Your task to perform on an android device: see sites visited before in the chrome app Image 0: 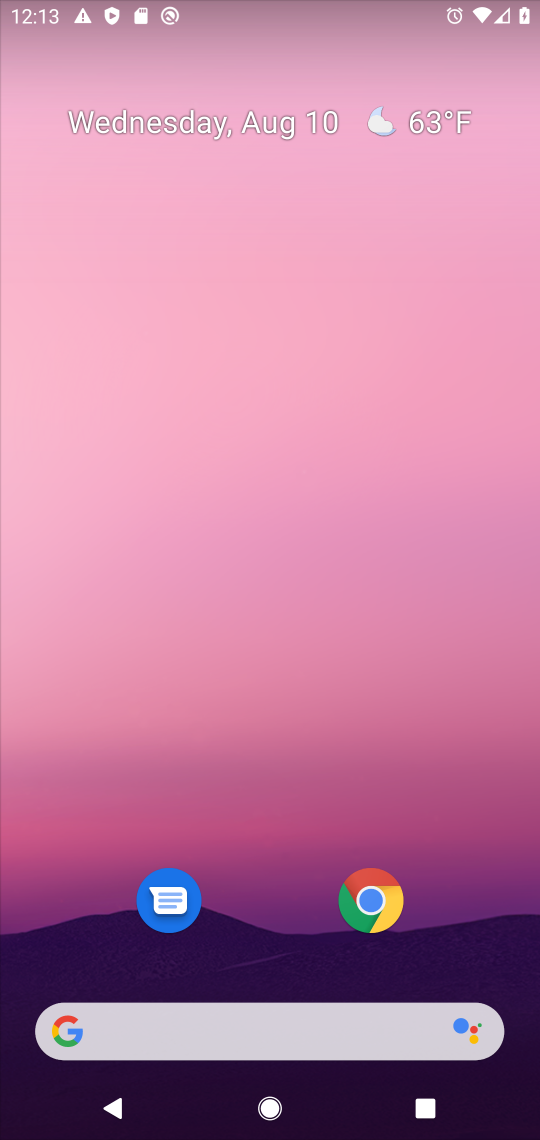
Step 0: click (371, 894)
Your task to perform on an android device: see sites visited before in the chrome app Image 1: 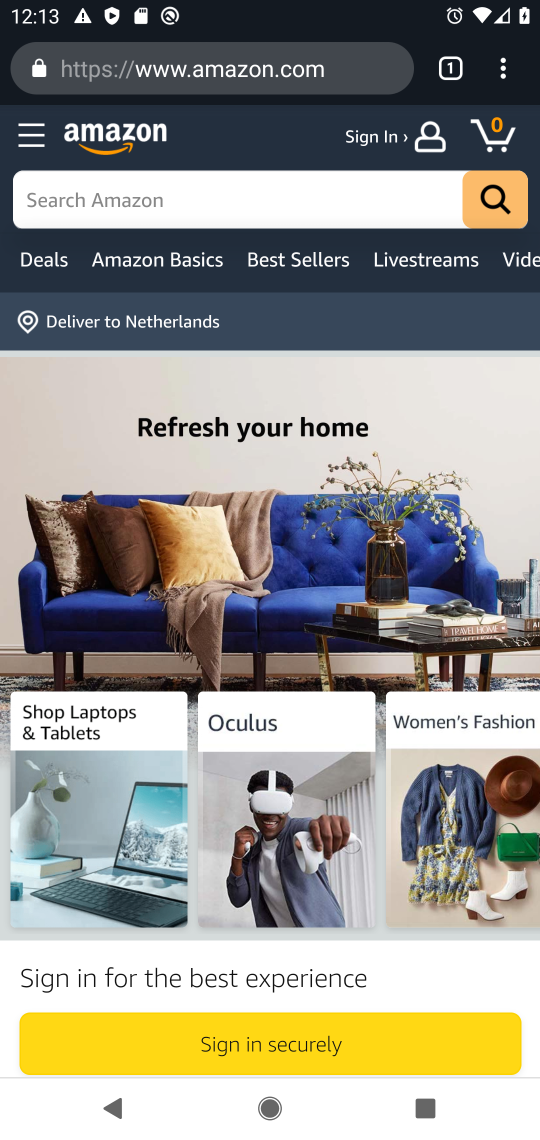
Step 1: click (501, 76)
Your task to perform on an android device: see sites visited before in the chrome app Image 2: 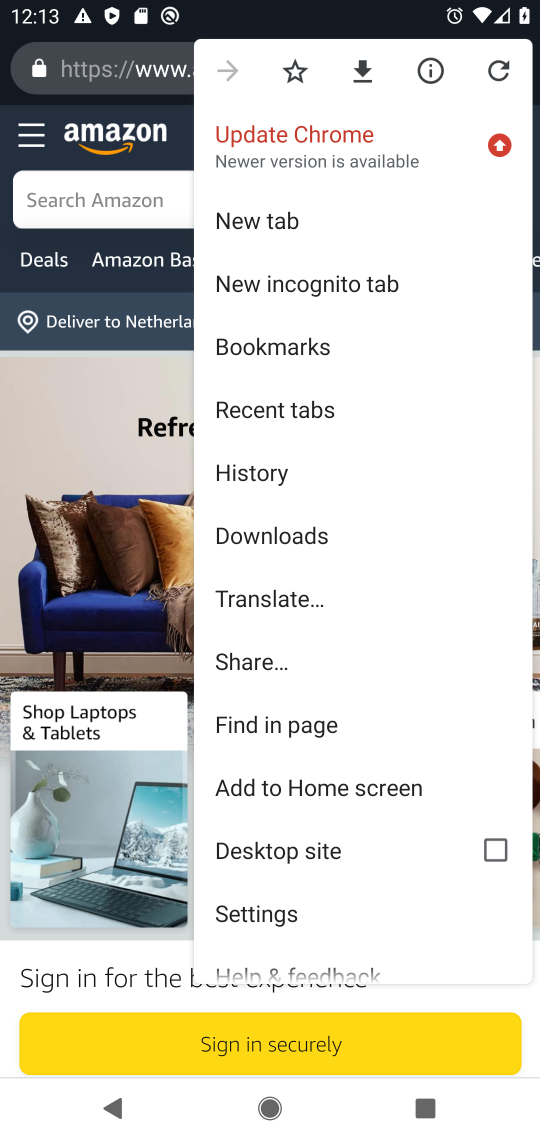
Step 2: click (286, 900)
Your task to perform on an android device: see sites visited before in the chrome app Image 3: 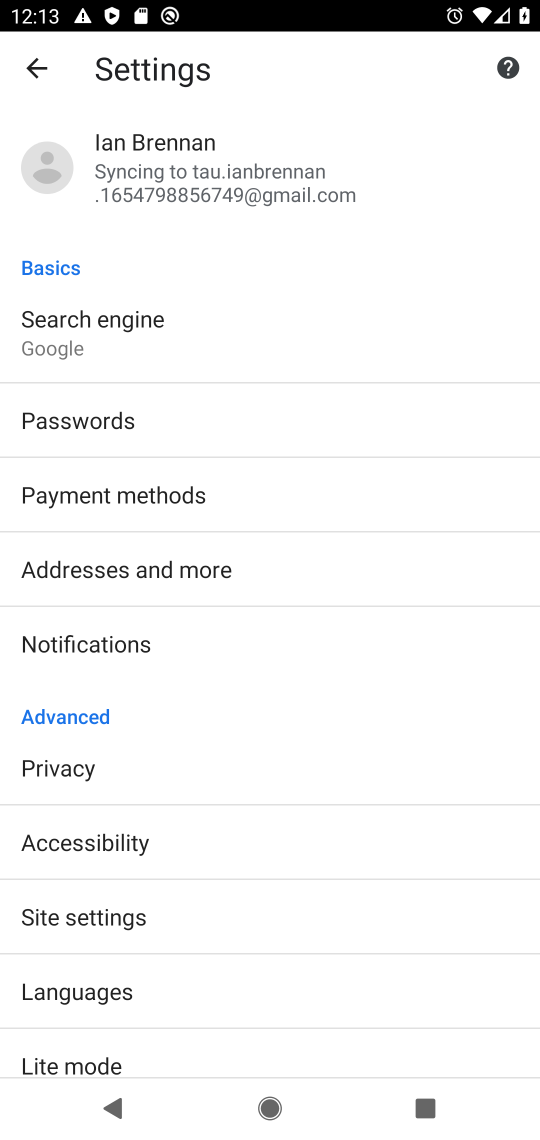
Step 3: click (39, 54)
Your task to perform on an android device: see sites visited before in the chrome app Image 4: 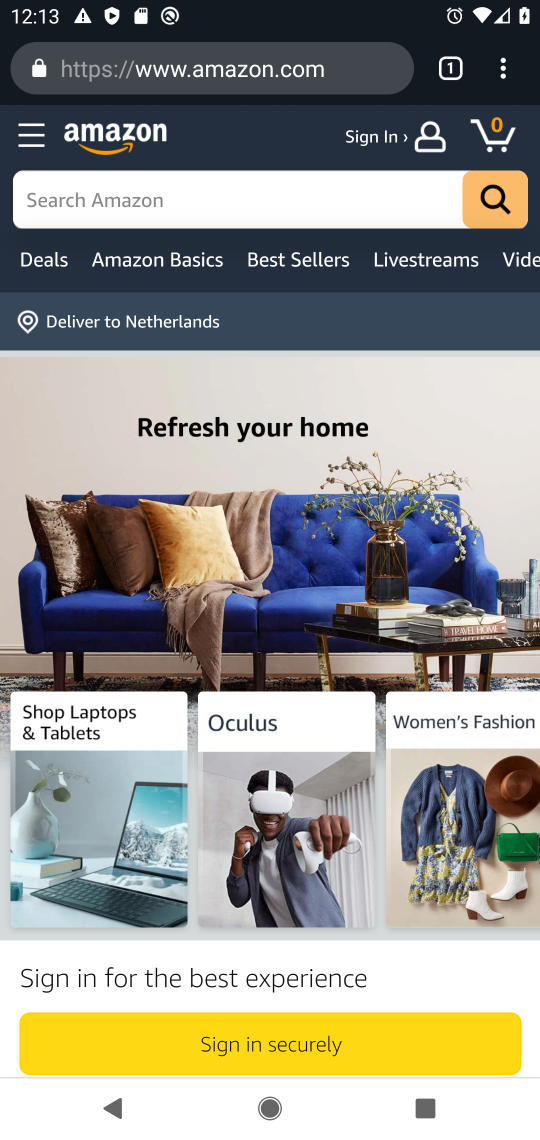
Step 4: click (503, 74)
Your task to perform on an android device: see sites visited before in the chrome app Image 5: 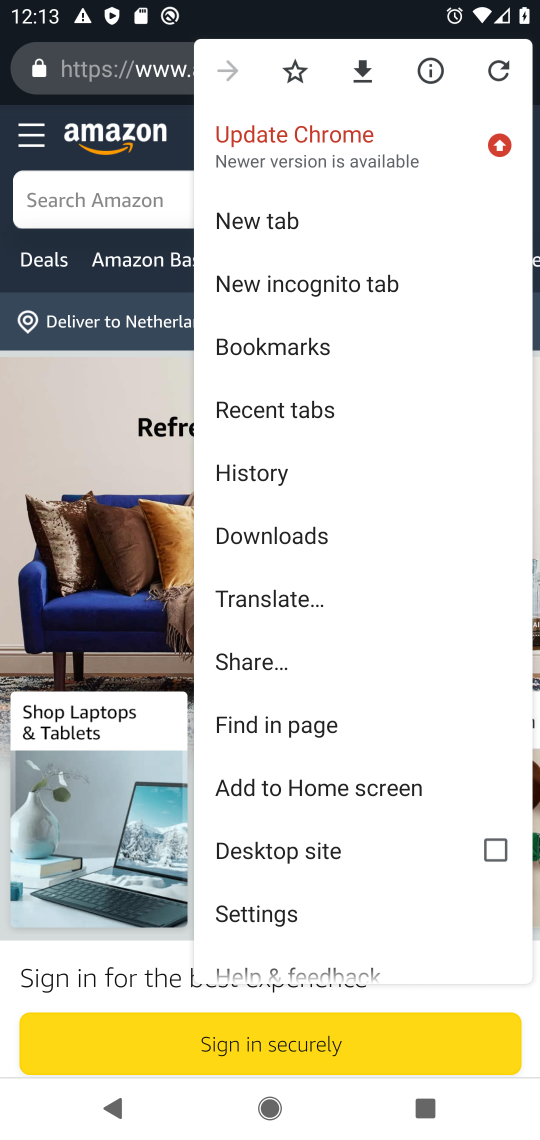
Step 5: click (317, 398)
Your task to perform on an android device: see sites visited before in the chrome app Image 6: 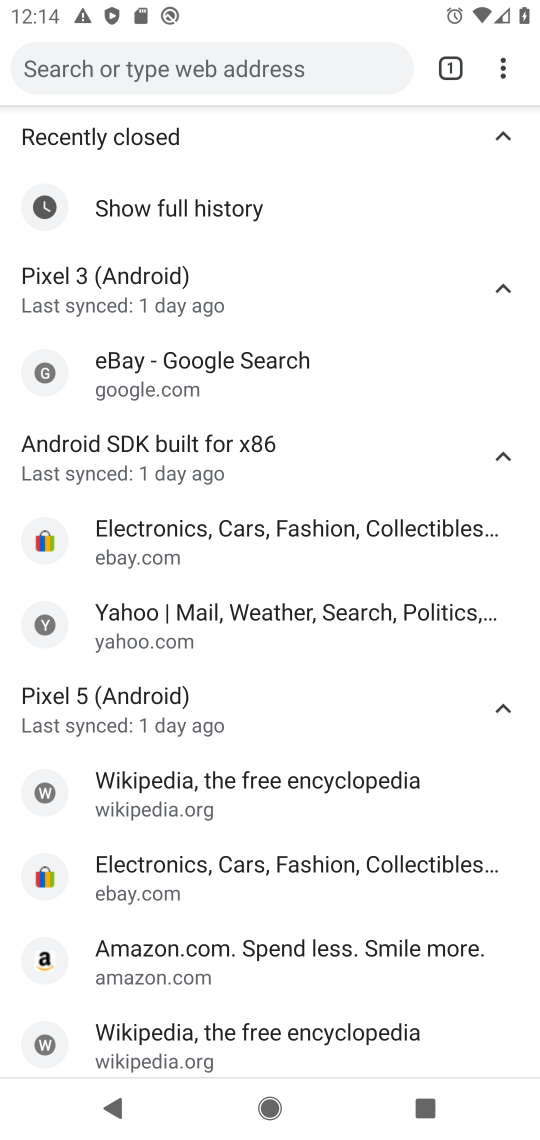
Step 6: task complete